Your task to perform on an android device: Go to Wikipedia Image 0: 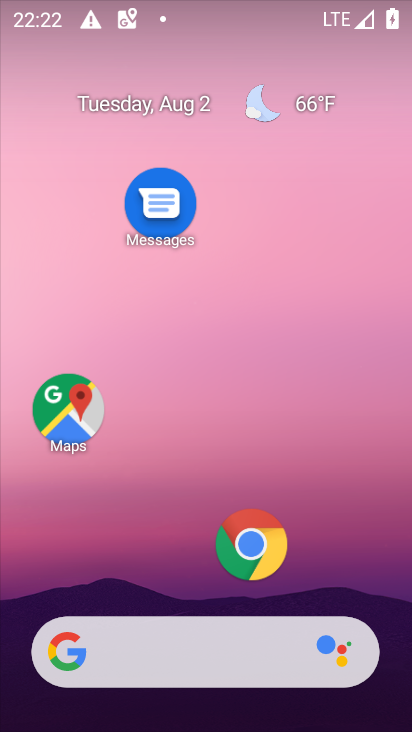
Step 0: click (265, 557)
Your task to perform on an android device: Go to Wikipedia Image 1: 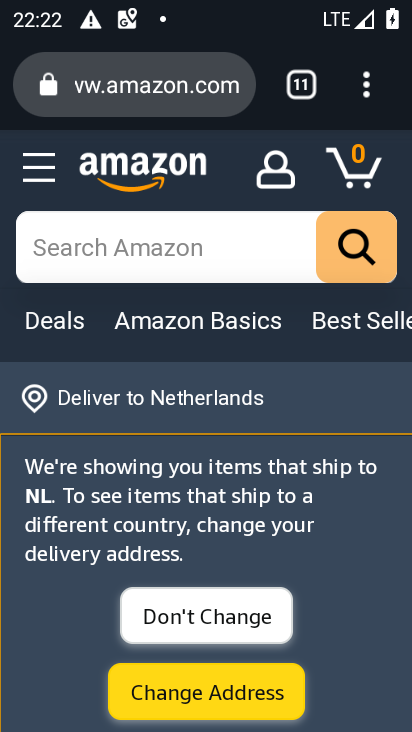
Step 1: click (293, 96)
Your task to perform on an android device: Go to Wikipedia Image 2: 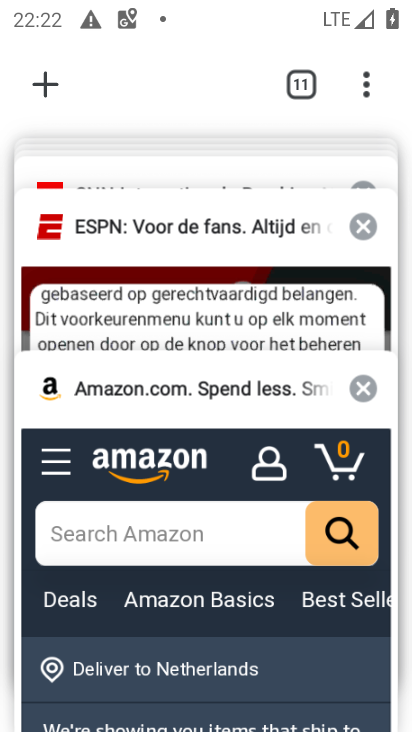
Step 2: click (42, 81)
Your task to perform on an android device: Go to Wikipedia Image 3: 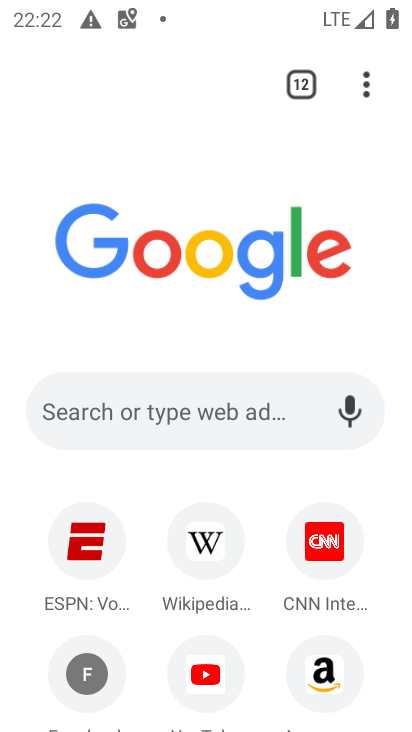
Step 3: click (222, 552)
Your task to perform on an android device: Go to Wikipedia Image 4: 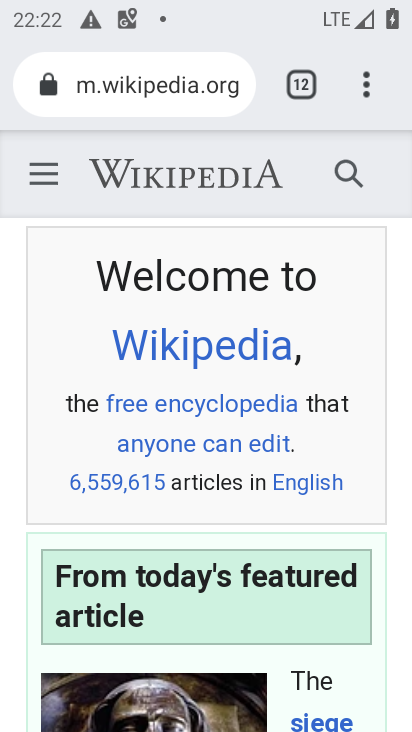
Step 4: task complete